Your task to perform on an android device: Go to calendar. Show me events next week Image 0: 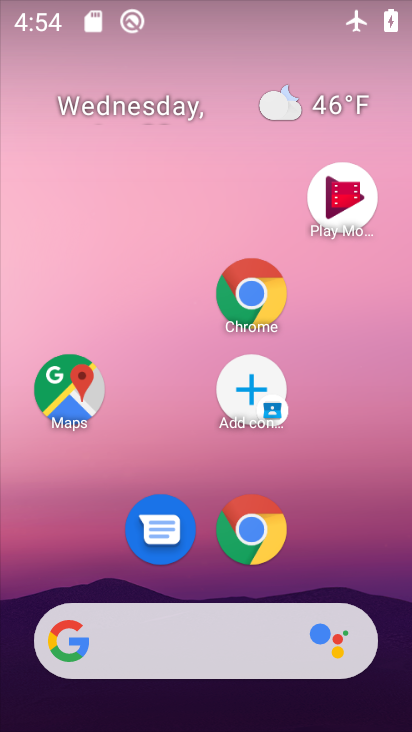
Step 0: drag from (326, 473) to (352, 100)
Your task to perform on an android device: Go to calendar. Show me events next week Image 1: 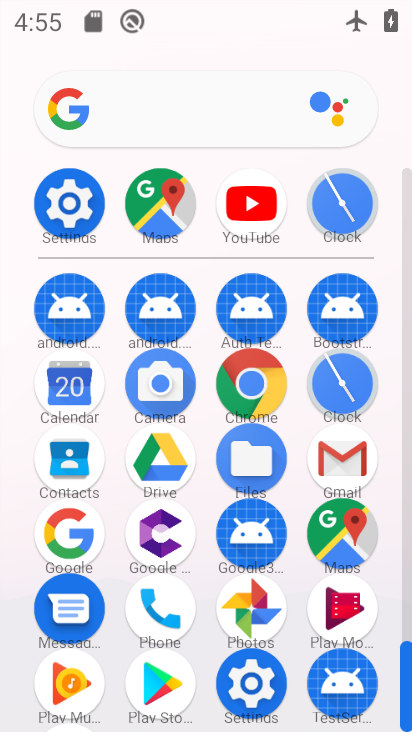
Step 1: click (84, 400)
Your task to perform on an android device: Go to calendar. Show me events next week Image 2: 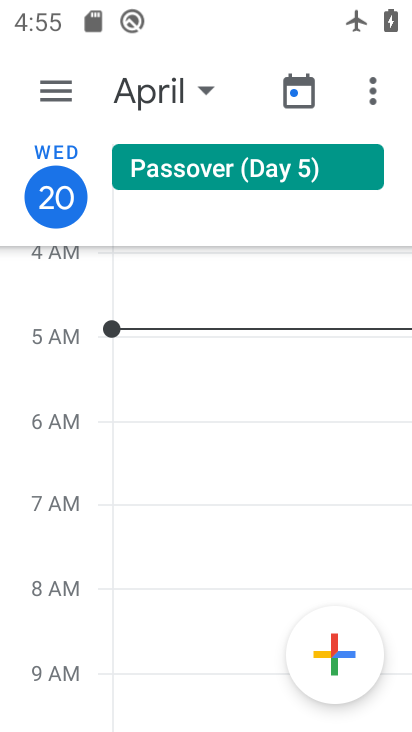
Step 2: click (153, 91)
Your task to perform on an android device: Go to calendar. Show me events next week Image 3: 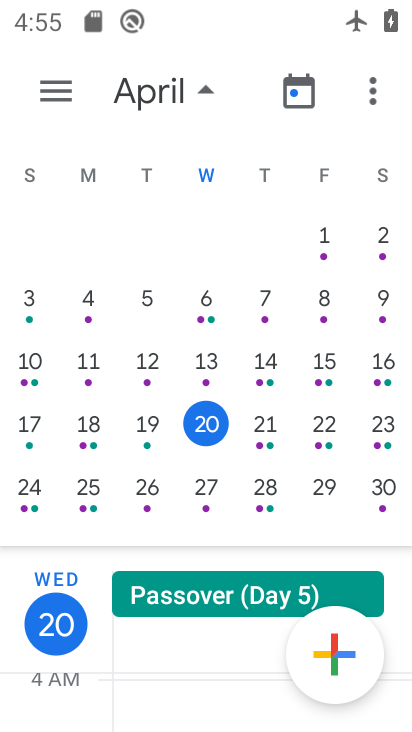
Step 3: click (28, 499)
Your task to perform on an android device: Go to calendar. Show me events next week Image 4: 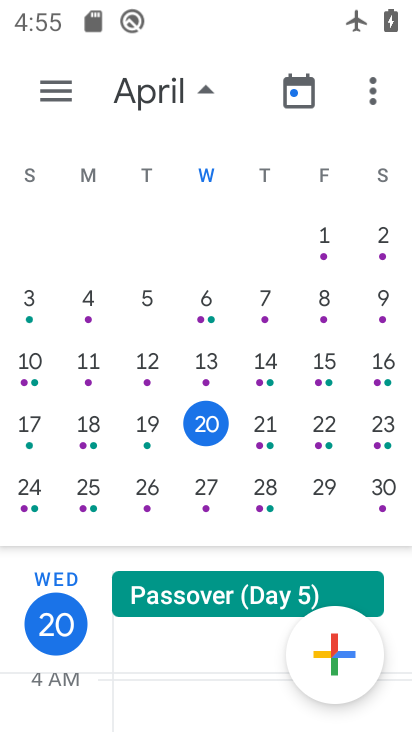
Step 4: click (96, 494)
Your task to perform on an android device: Go to calendar. Show me events next week Image 5: 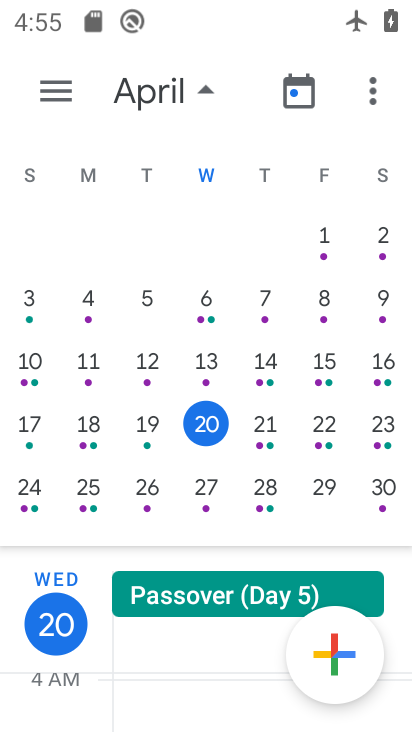
Step 5: click (148, 496)
Your task to perform on an android device: Go to calendar. Show me events next week Image 6: 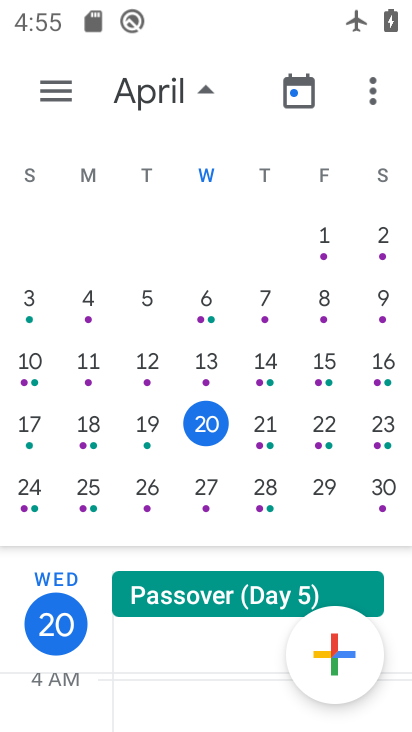
Step 6: click (205, 495)
Your task to perform on an android device: Go to calendar. Show me events next week Image 7: 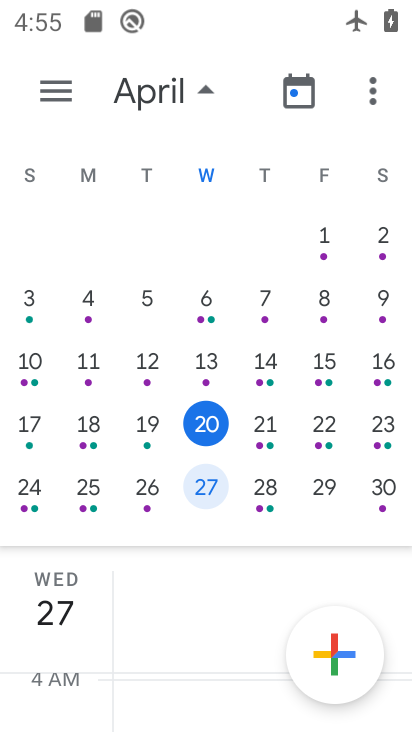
Step 7: click (257, 495)
Your task to perform on an android device: Go to calendar. Show me events next week Image 8: 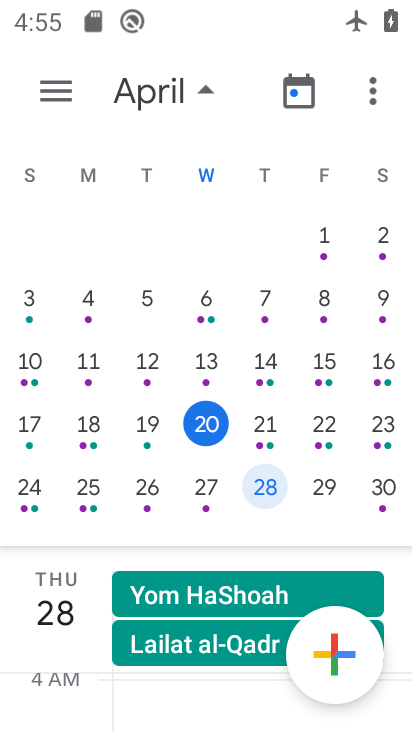
Step 8: click (316, 494)
Your task to perform on an android device: Go to calendar. Show me events next week Image 9: 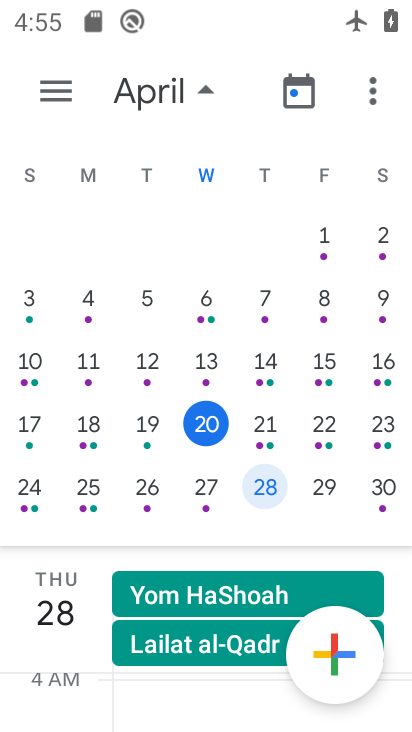
Step 9: click (385, 488)
Your task to perform on an android device: Go to calendar. Show me events next week Image 10: 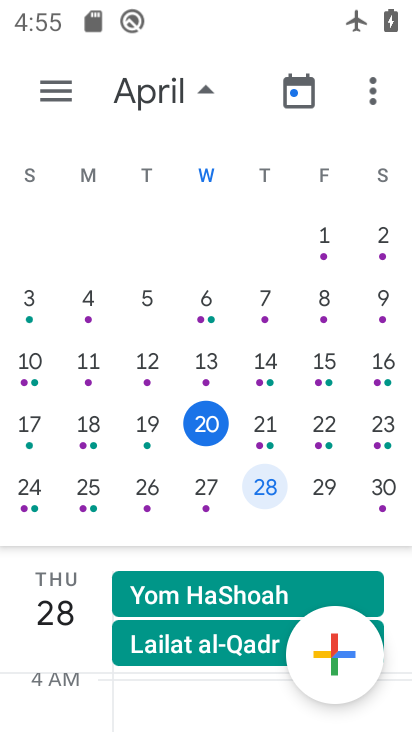
Step 10: click (385, 488)
Your task to perform on an android device: Go to calendar. Show me events next week Image 11: 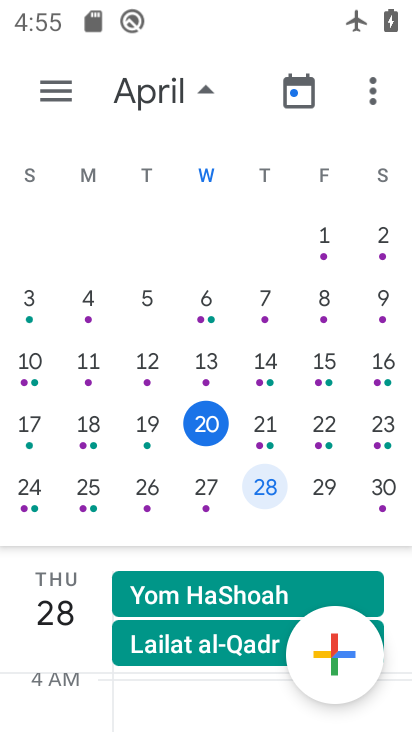
Step 11: click (387, 501)
Your task to perform on an android device: Go to calendar. Show me events next week Image 12: 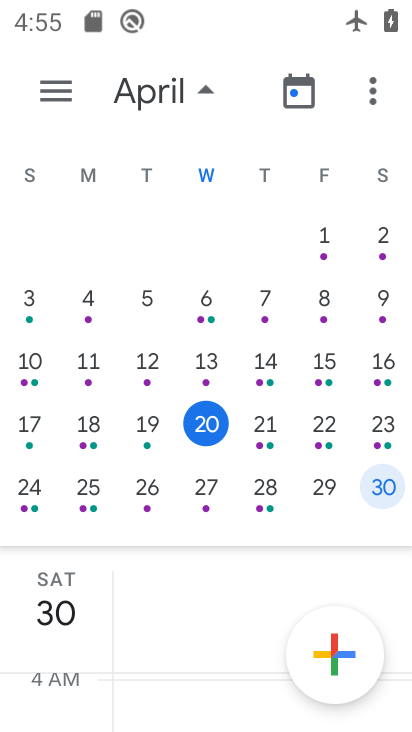
Step 12: task complete